Your task to perform on an android device: open app "Duolingo: language lessons" (install if not already installed) and enter user name: "omens@gmail.com" and password: "casks" Image 0: 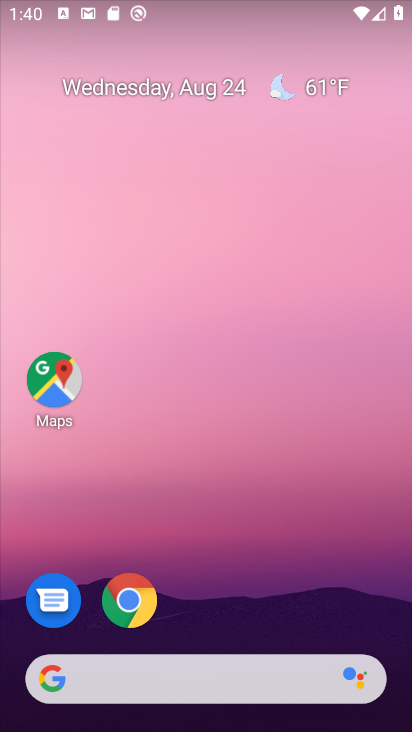
Step 0: drag from (294, 626) to (224, 52)
Your task to perform on an android device: open app "Duolingo: language lessons" (install if not already installed) and enter user name: "omens@gmail.com" and password: "casks" Image 1: 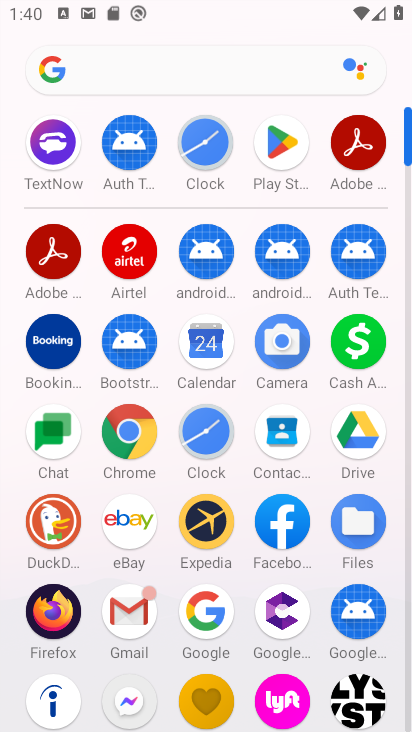
Step 1: click (280, 150)
Your task to perform on an android device: open app "Duolingo: language lessons" (install if not already installed) and enter user name: "omens@gmail.com" and password: "casks" Image 2: 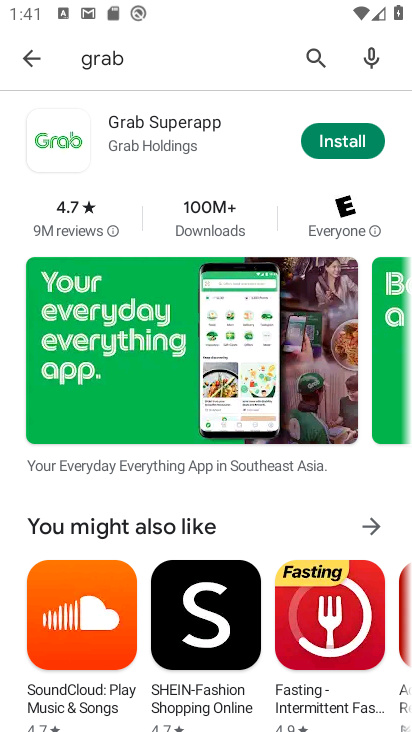
Step 2: click (317, 144)
Your task to perform on an android device: open app "Duolingo: language lessons" (install if not already installed) and enter user name: "omens@gmail.com" and password: "casks" Image 3: 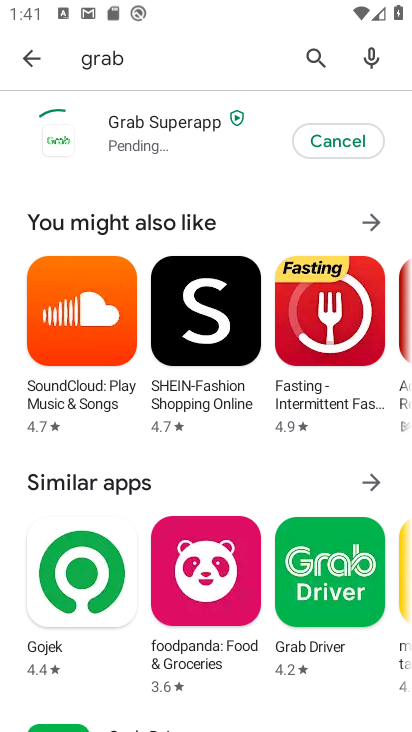
Step 3: click (320, 58)
Your task to perform on an android device: open app "Duolingo: language lessons" (install if not already installed) and enter user name: "omens@gmail.com" and password: "casks" Image 4: 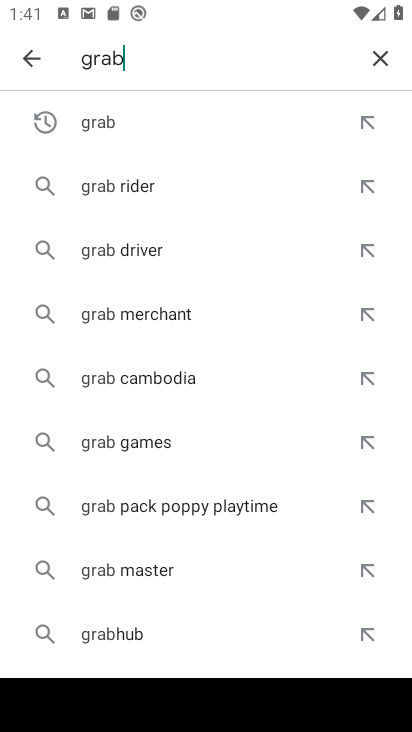
Step 4: click (370, 53)
Your task to perform on an android device: open app "Duolingo: language lessons" (install if not already installed) and enter user name: "omens@gmail.com" and password: "casks" Image 5: 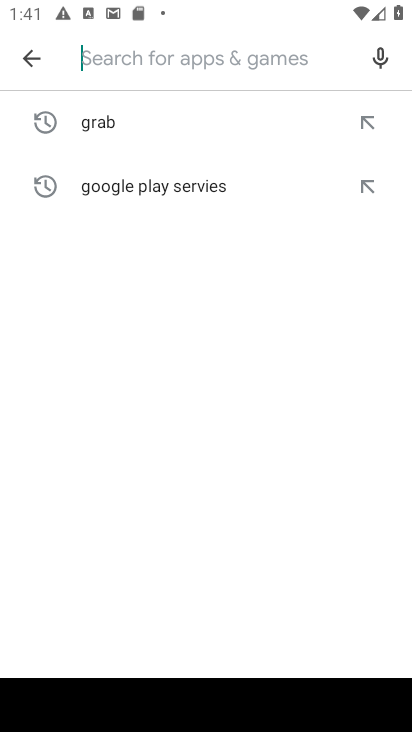
Step 5: type "duulingo"
Your task to perform on an android device: open app "Duolingo: language lessons" (install if not already installed) and enter user name: "omens@gmail.com" and password: "casks" Image 6: 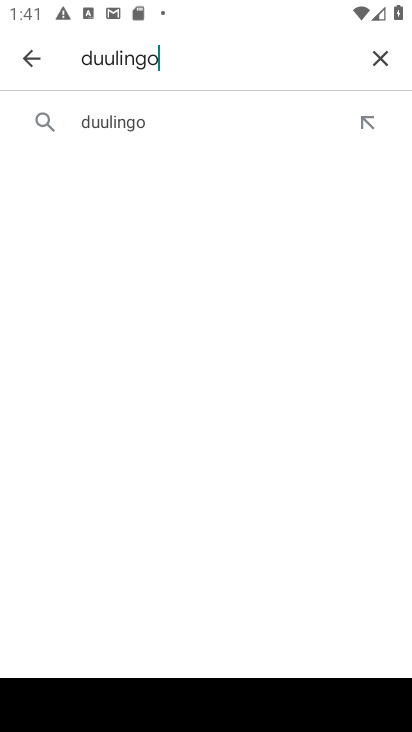
Step 6: click (162, 126)
Your task to perform on an android device: open app "Duolingo: language lessons" (install if not already installed) and enter user name: "omens@gmail.com" and password: "casks" Image 7: 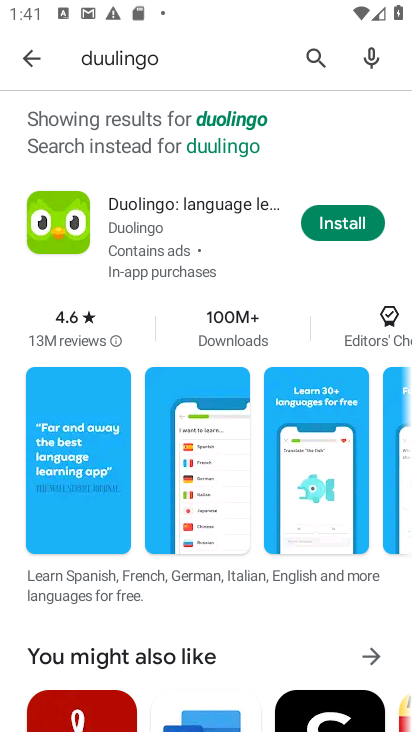
Step 7: click (344, 216)
Your task to perform on an android device: open app "Duolingo: language lessons" (install if not already installed) and enter user name: "omens@gmail.com" and password: "casks" Image 8: 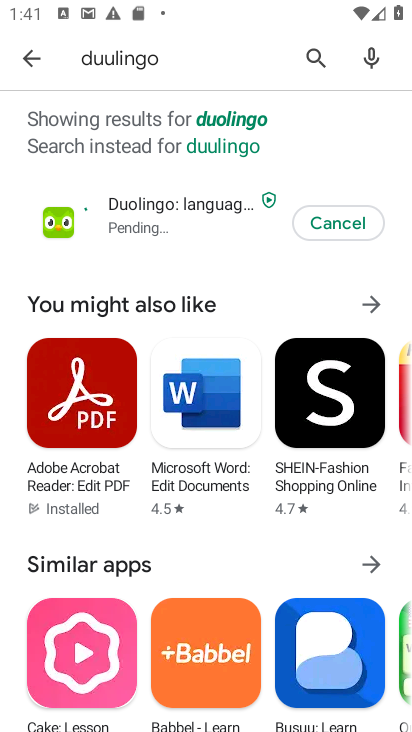
Step 8: task complete